Your task to perform on an android device: Open Google Chrome and click the shortcut for Amazon.com Image 0: 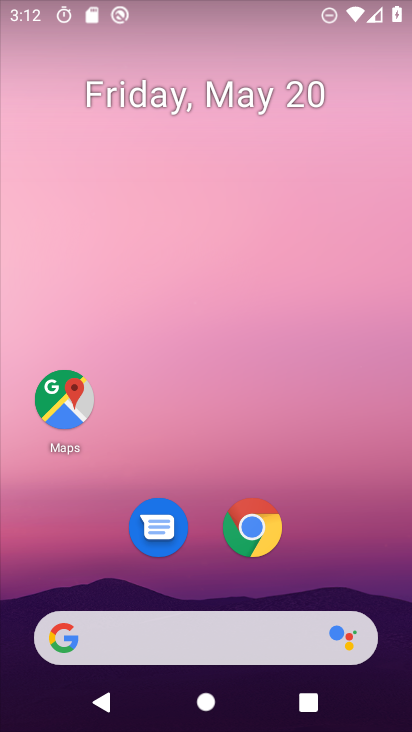
Step 0: click (255, 552)
Your task to perform on an android device: Open Google Chrome and click the shortcut for Amazon.com Image 1: 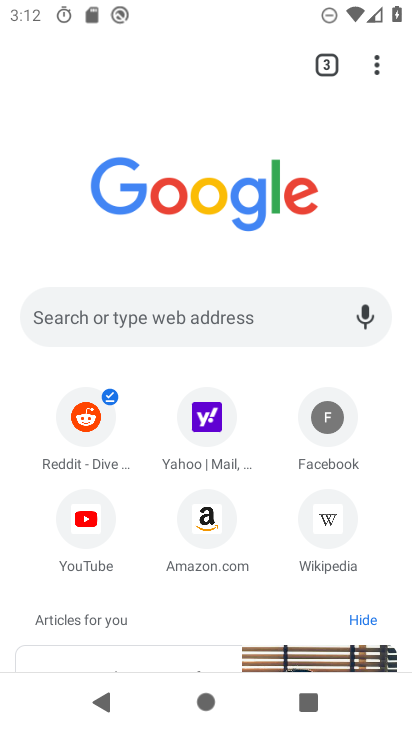
Step 1: click (208, 513)
Your task to perform on an android device: Open Google Chrome and click the shortcut for Amazon.com Image 2: 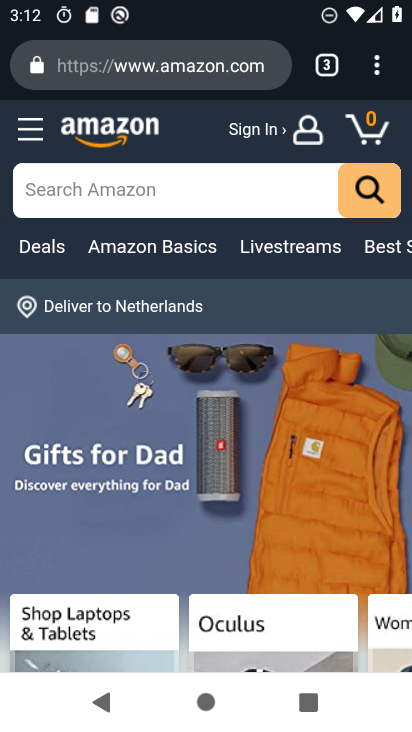
Step 2: task complete